Your task to perform on an android device: turn off priority inbox in the gmail app Image 0: 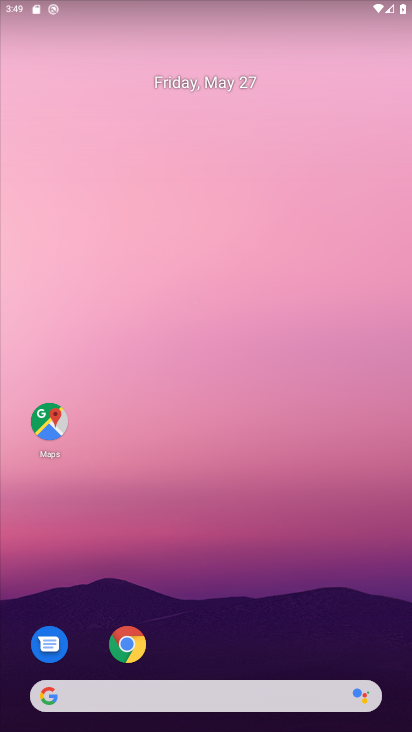
Step 0: drag from (266, 572) to (157, 136)
Your task to perform on an android device: turn off priority inbox in the gmail app Image 1: 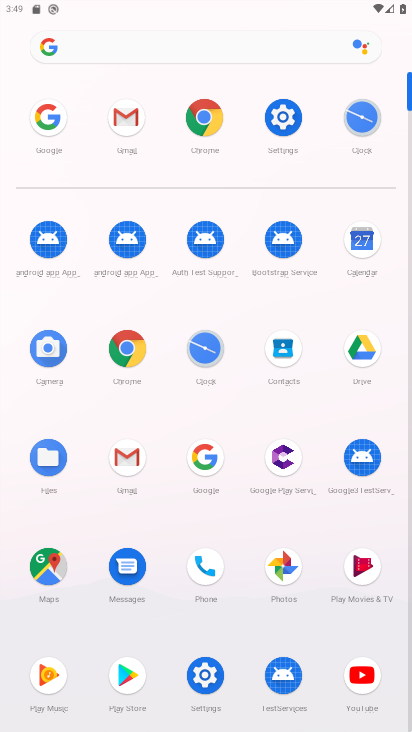
Step 1: click (129, 463)
Your task to perform on an android device: turn off priority inbox in the gmail app Image 2: 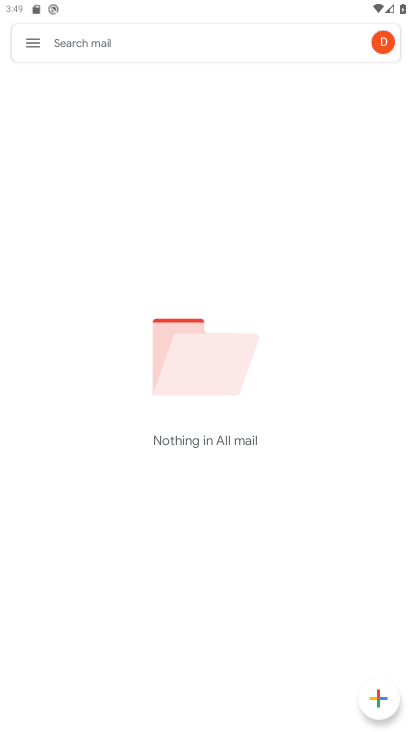
Step 2: click (35, 43)
Your task to perform on an android device: turn off priority inbox in the gmail app Image 3: 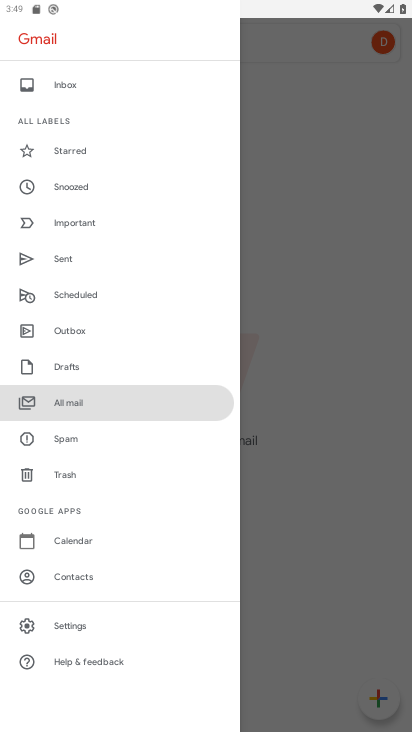
Step 3: click (106, 624)
Your task to perform on an android device: turn off priority inbox in the gmail app Image 4: 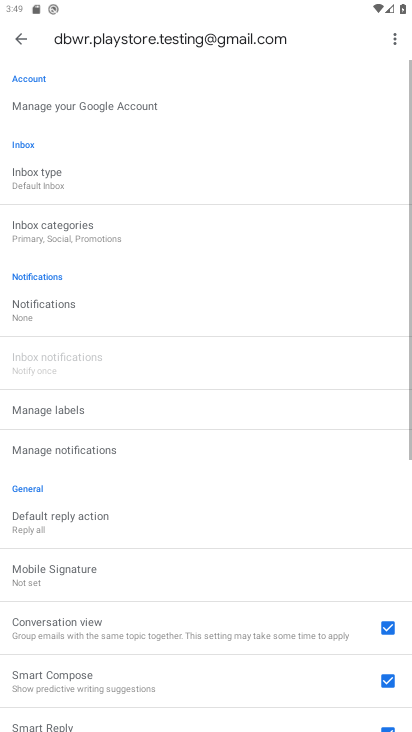
Step 4: click (63, 174)
Your task to perform on an android device: turn off priority inbox in the gmail app Image 5: 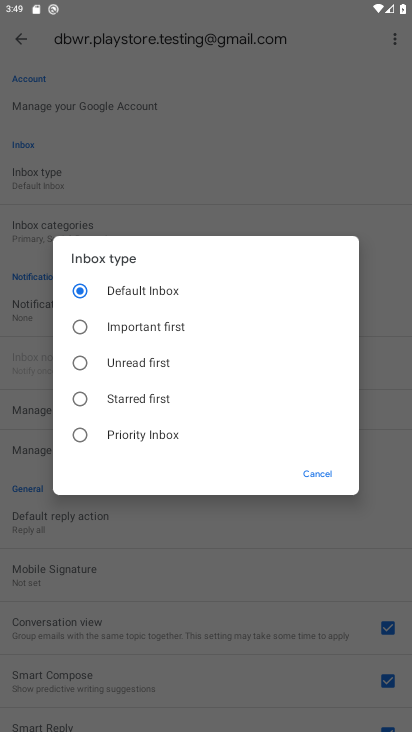
Step 5: task complete